Your task to perform on an android device: Open calendar and show me the fourth week of next month Image 0: 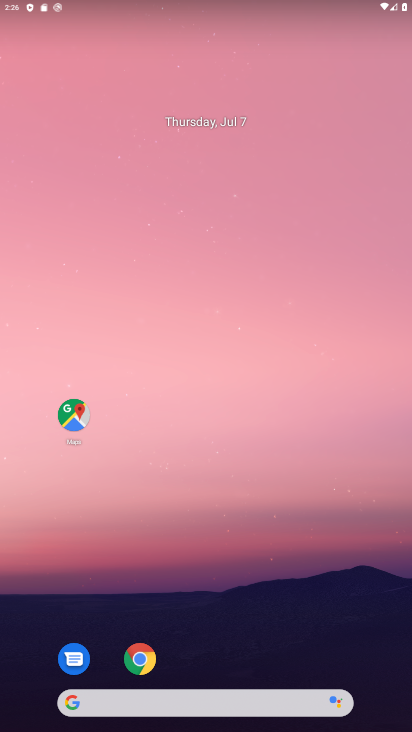
Step 0: drag from (245, 648) to (118, 119)
Your task to perform on an android device: Open calendar and show me the fourth week of next month Image 1: 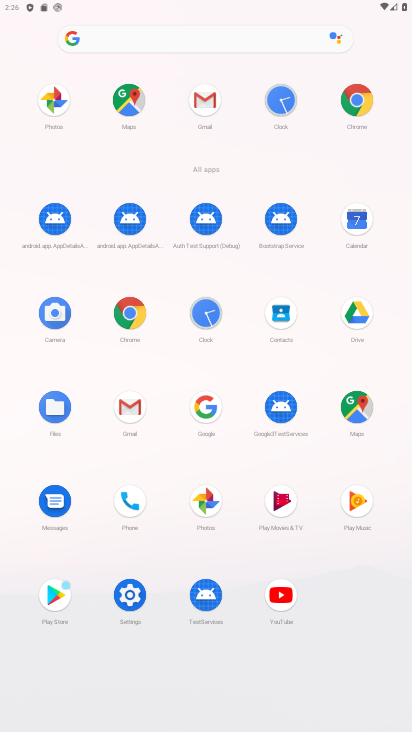
Step 1: click (364, 229)
Your task to perform on an android device: Open calendar and show me the fourth week of next month Image 2: 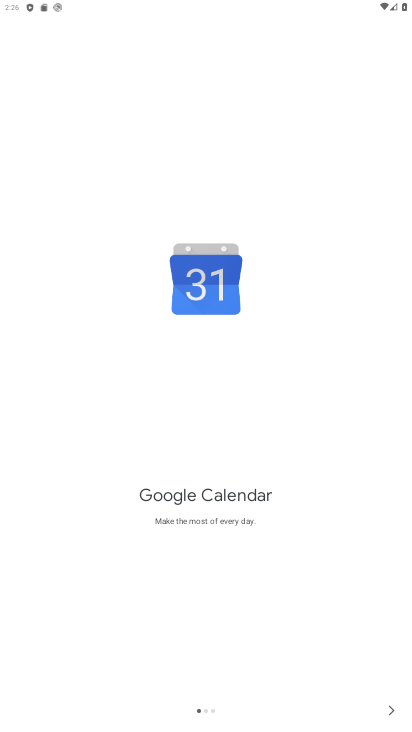
Step 2: click (389, 710)
Your task to perform on an android device: Open calendar and show me the fourth week of next month Image 3: 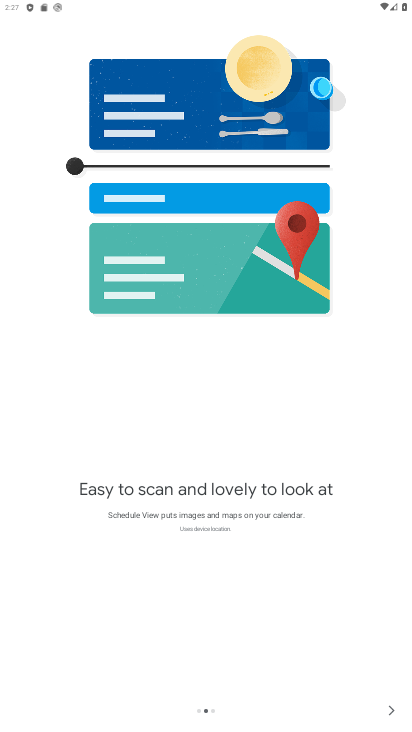
Step 3: click (389, 710)
Your task to perform on an android device: Open calendar and show me the fourth week of next month Image 4: 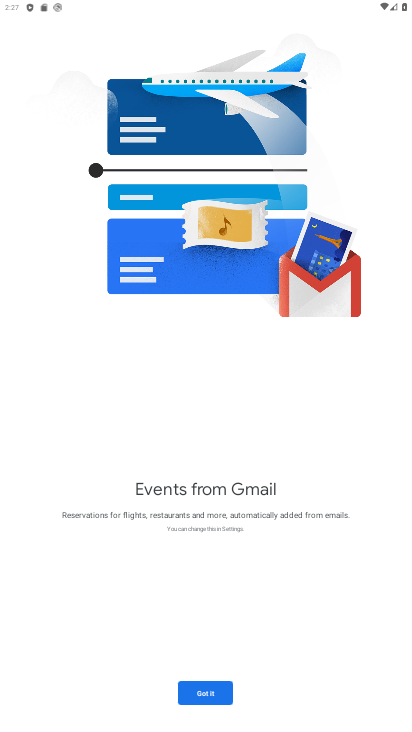
Step 4: click (220, 699)
Your task to perform on an android device: Open calendar and show me the fourth week of next month Image 5: 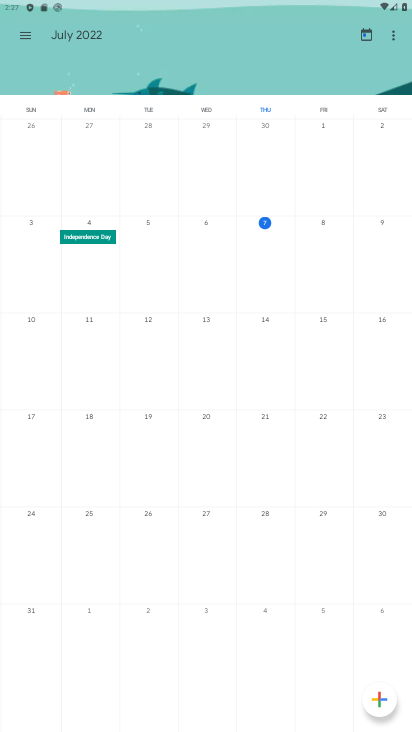
Step 5: click (32, 29)
Your task to perform on an android device: Open calendar and show me the fourth week of next month Image 6: 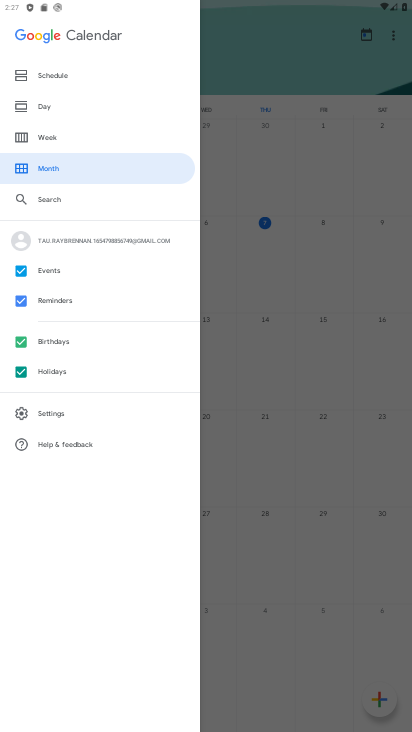
Step 6: click (40, 128)
Your task to perform on an android device: Open calendar and show me the fourth week of next month Image 7: 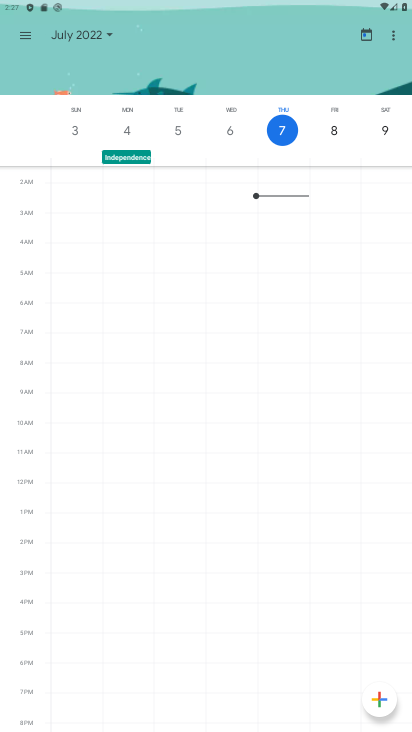
Step 7: click (105, 29)
Your task to perform on an android device: Open calendar and show me the fourth week of next month Image 8: 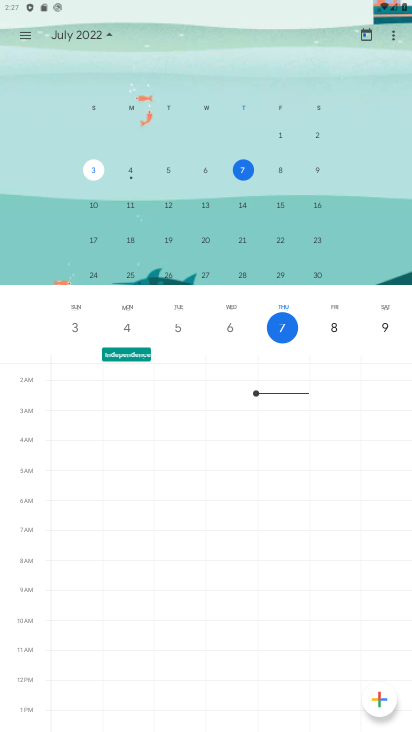
Step 8: drag from (350, 236) to (20, 292)
Your task to perform on an android device: Open calendar and show me the fourth week of next month Image 9: 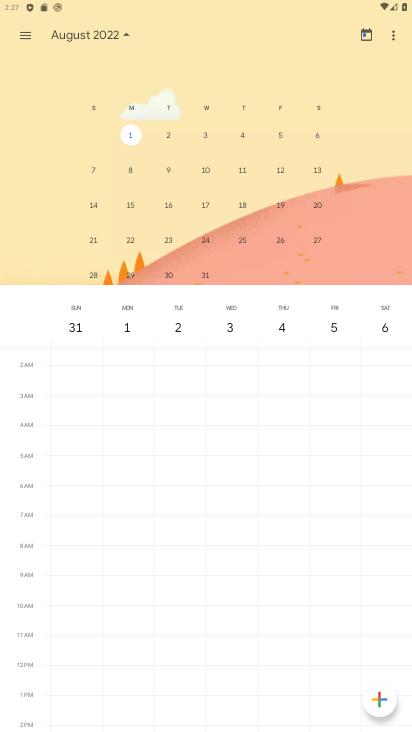
Step 9: click (203, 233)
Your task to perform on an android device: Open calendar and show me the fourth week of next month Image 10: 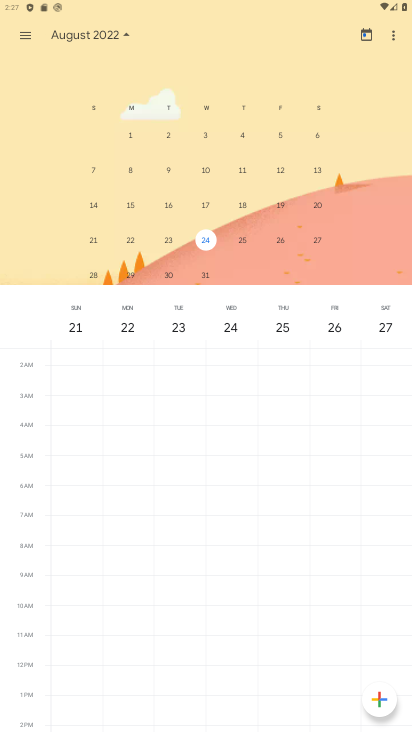
Step 10: task complete